Your task to perform on an android device: Open Android settings Image 0: 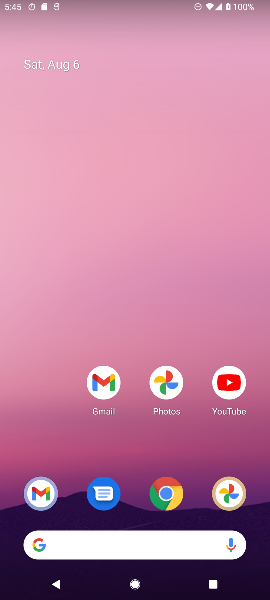
Step 0: drag from (140, 567) to (37, 130)
Your task to perform on an android device: Open Android settings Image 1: 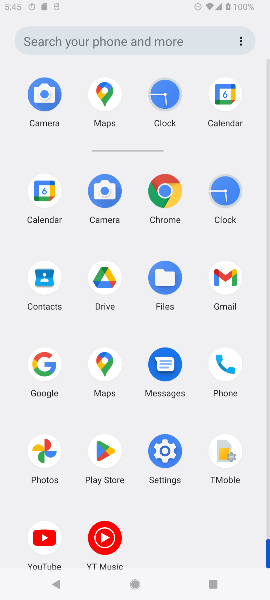
Step 1: drag from (144, 523) to (126, 135)
Your task to perform on an android device: Open Android settings Image 2: 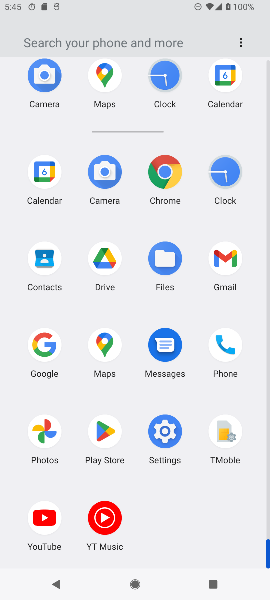
Step 2: click (162, 438)
Your task to perform on an android device: Open Android settings Image 3: 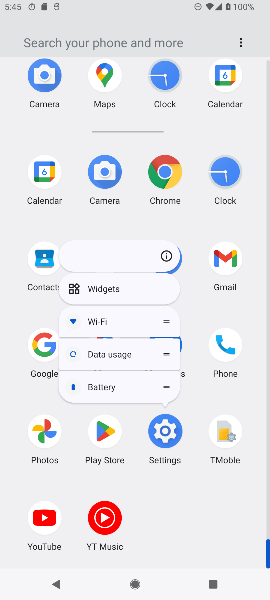
Step 3: click (163, 436)
Your task to perform on an android device: Open Android settings Image 4: 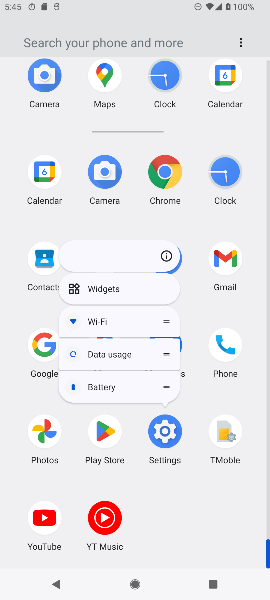
Step 4: click (163, 436)
Your task to perform on an android device: Open Android settings Image 5: 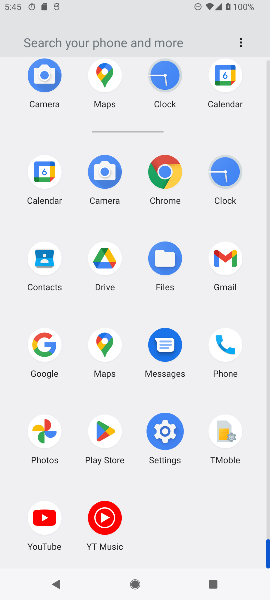
Step 5: click (165, 435)
Your task to perform on an android device: Open Android settings Image 6: 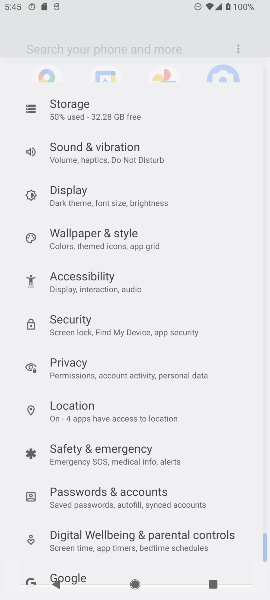
Step 6: click (165, 435)
Your task to perform on an android device: Open Android settings Image 7: 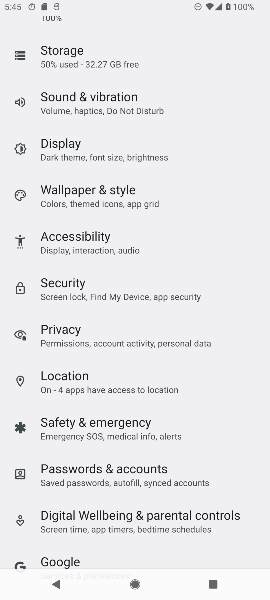
Step 7: click (165, 435)
Your task to perform on an android device: Open Android settings Image 8: 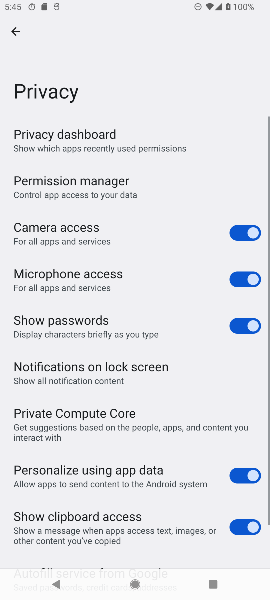
Step 8: drag from (99, 403) to (87, 158)
Your task to perform on an android device: Open Android settings Image 9: 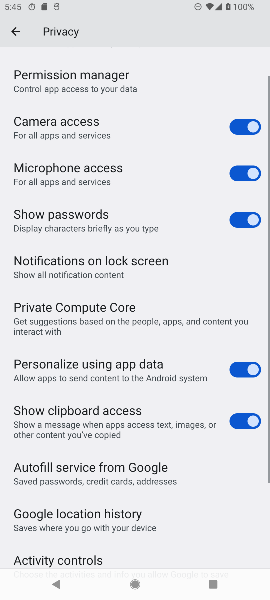
Step 9: drag from (76, 412) to (29, 64)
Your task to perform on an android device: Open Android settings Image 10: 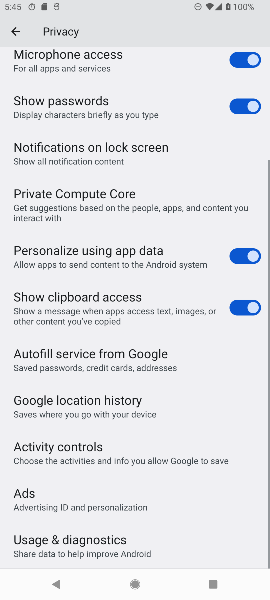
Step 10: click (16, 31)
Your task to perform on an android device: Open Android settings Image 11: 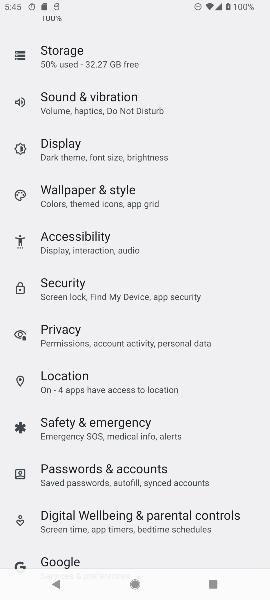
Step 11: drag from (103, 194) to (97, 21)
Your task to perform on an android device: Open Android settings Image 12: 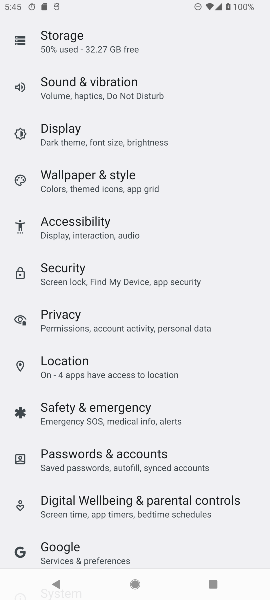
Step 12: drag from (95, 181) to (79, 81)
Your task to perform on an android device: Open Android settings Image 13: 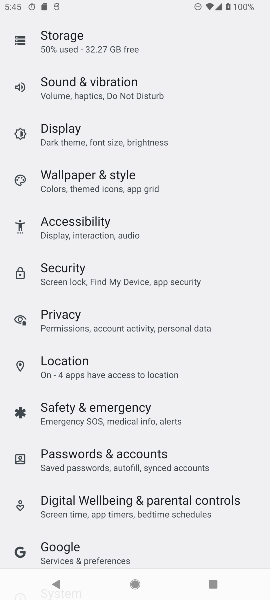
Step 13: drag from (124, 344) to (97, 122)
Your task to perform on an android device: Open Android settings Image 14: 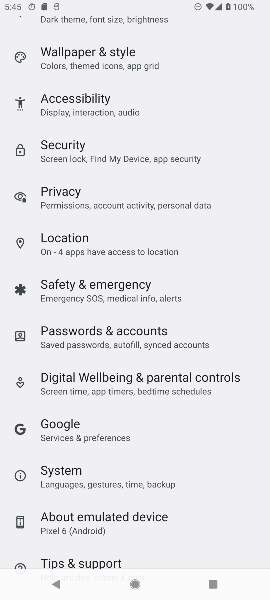
Step 14: drag from (99, 485) to (7, 196)
Your task to perform on an android device: Open Android settings Image 15: 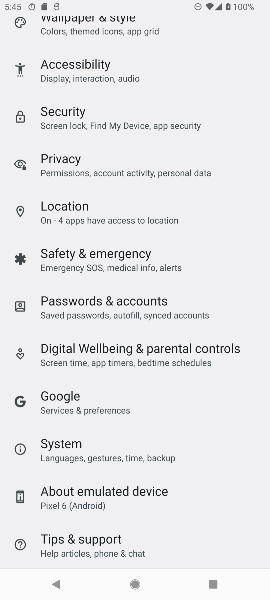
Step 15: drag from (75, 357) to (74, 120)
Your task to perform on an android device: Open Android settings Image 16: 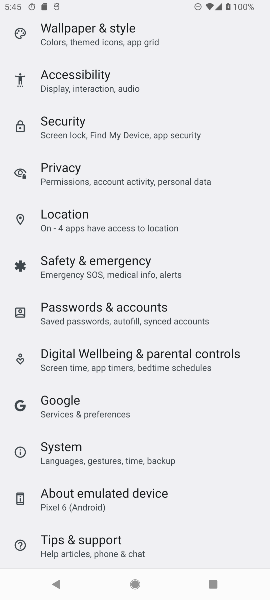
Step 16: drag from (132, 434) to (107, 178)
Your task to perform on an android device: Open Android settings Image 17: 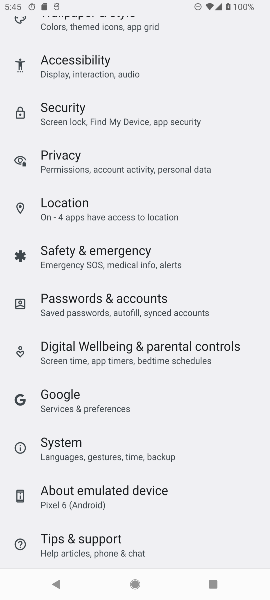
Step 17: drag from (121, 441) to (91, 199)
Your task to perform on an android device: Open Android settings Image 18: 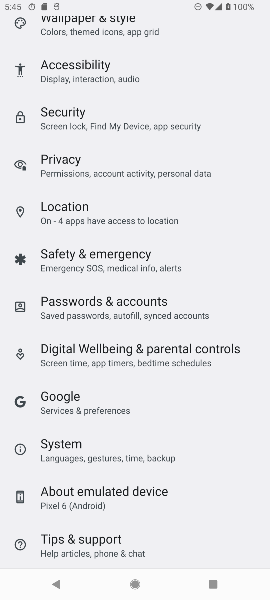
Step 18: click (94, 497)
Your task to perform on an android device: Open Android settings Image 19: 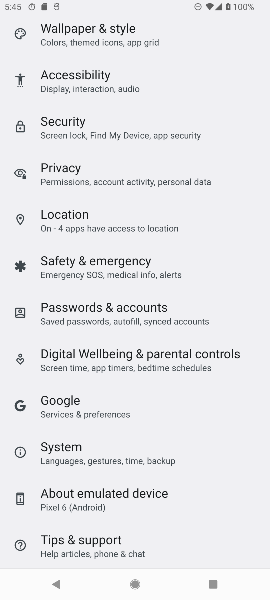
Step 19: click (94, 497)
Your task to perform on an android device: Open Android settings Image 20: 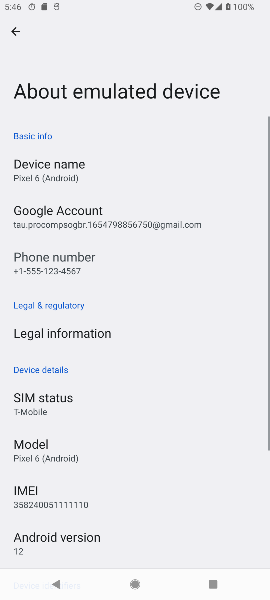
Step 20: task complete